Your task to perform on an android device: turn on showing notifications on the lock screen Image 0: 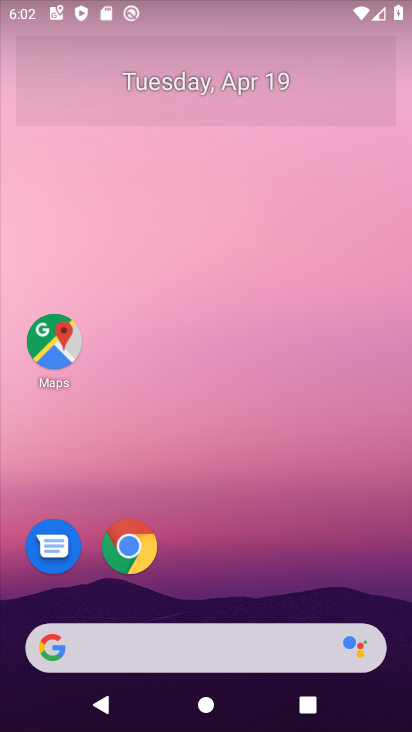
Step 0: click (265, 12)
Your task to perform on an android device: turn on showing notifications on the lock screen Image 1: 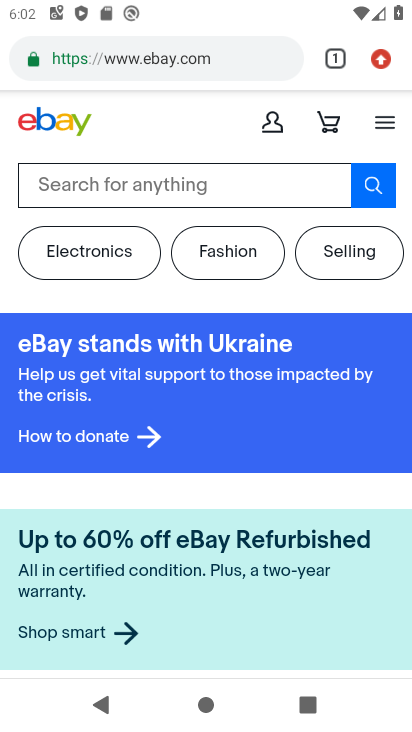
Step 1: press home button
Your task to perform on an android device: turn on showing notifications on the lock screen Image 2: 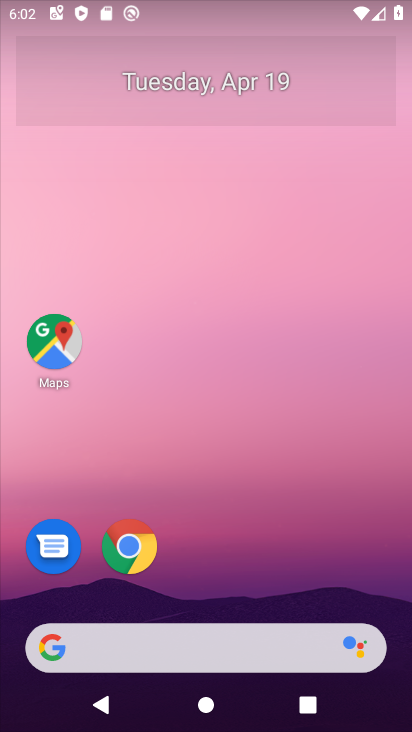
Step 2: drag from (271, 543) to (232, 80)
Your task to perform on an android device: turn on showing notifications on the lock screen Image 3: 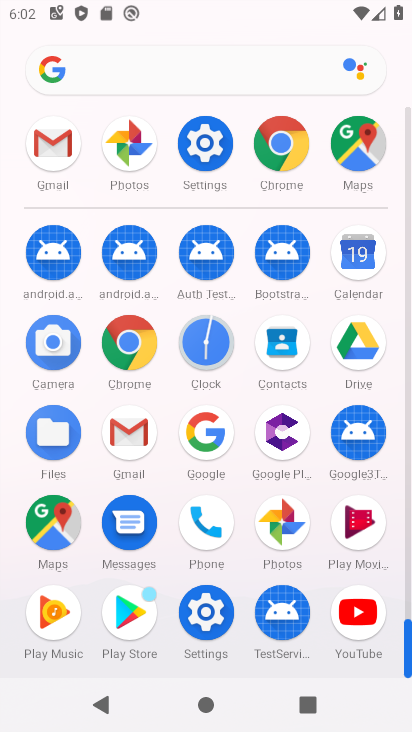
Step 3: click (215, 616)
Your task to perform on an android device: turn on showing notifications on the lock screen Image 4: 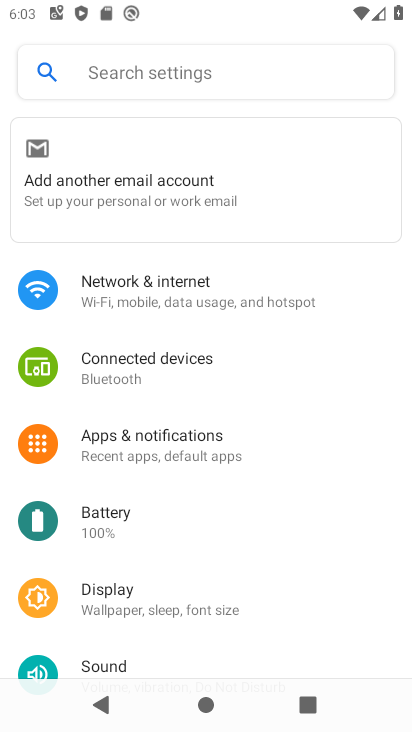
Step 4: drag from (186, 585) to (272, 53)
Your task to perform on an android device: turn on showing notifications on the lock screen Image 5: 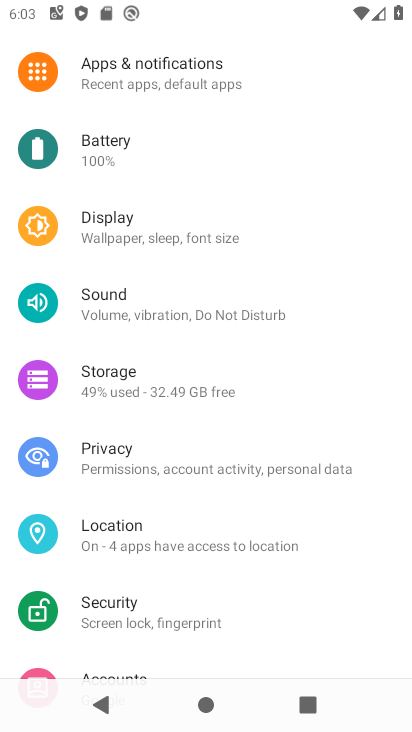
Step 5: click (195, 70)
Your task to perform on an android device: turn on showing notifications on the lock screen Image 6: 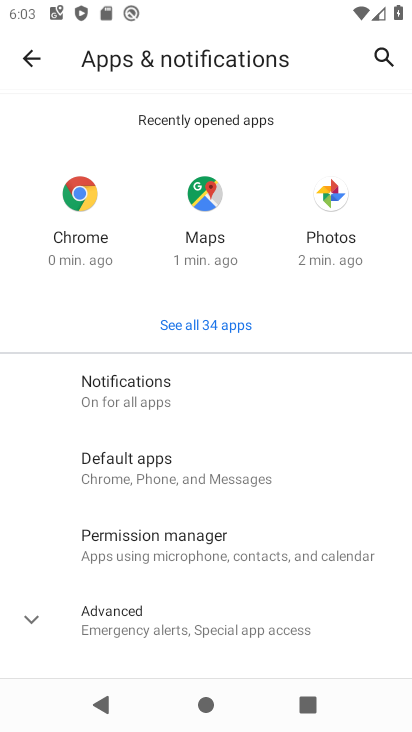
Step 6: click (169, 382)
Your task to perform on an android device: turn on showing notifications on the lock screen Image 7: 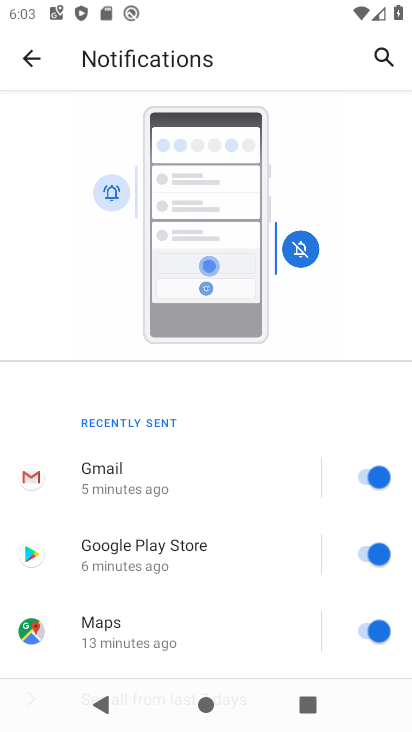
Step 7: drag from (264, 523) to (307, 81)
Your task to perform on an android device: turn on showing notifications on the lock screen Image 8: 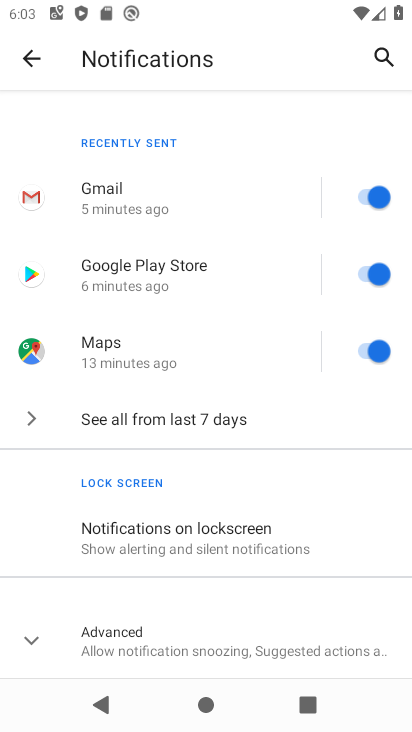
Step 8: click (198, 535)
Your task to perform on an android device: turn on showing notifications on the lock screen Image 9: 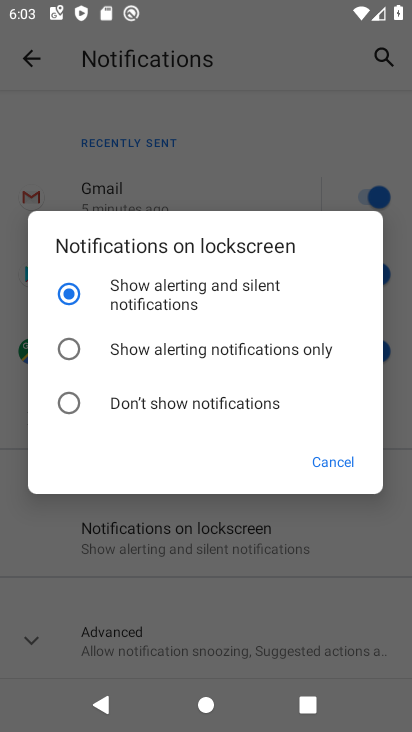
Step 9: click (209, 345)
Your task to perform on an android device: turn on showing notifications on the lock screen Image 10: 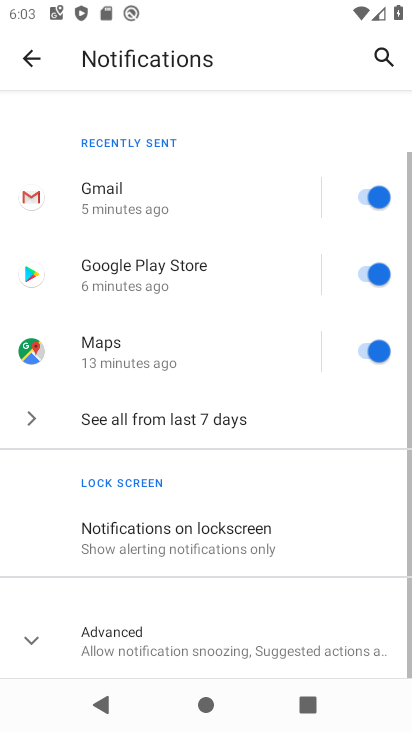
Step 10: task complete